Your task to perform on an android device: change the upload size in google photos Image 0: 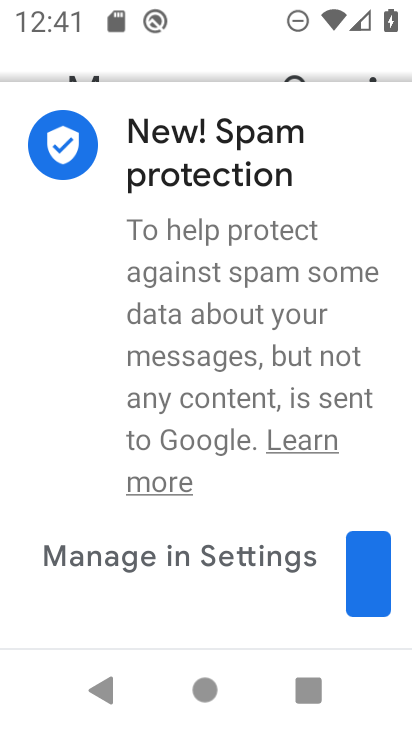
Step 0: press back button
Your task to perform on an android device: change the upload size in google photos Image 1: 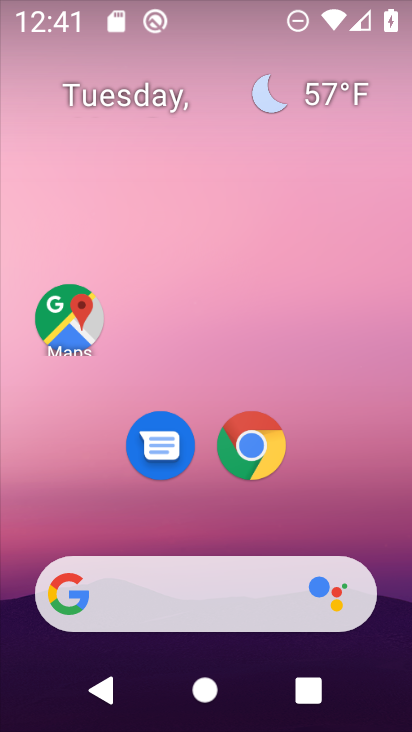
Step 1: drag from (386, 547) to (377, 285)
Your task to perform on an android device: change the upload size in google photos Image 2: 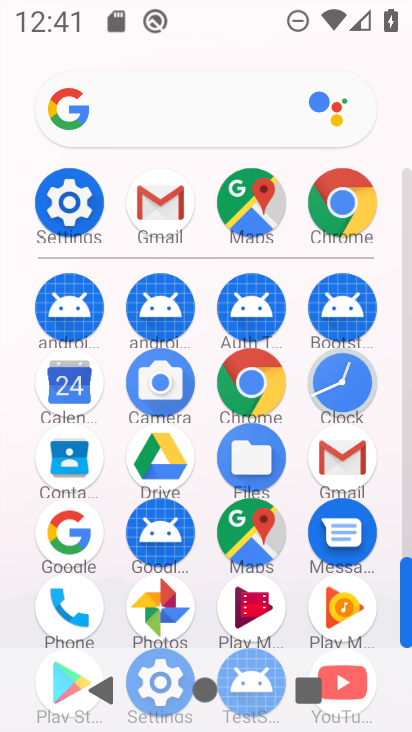
Step 2: drag from (389, 525) to (384, 382)
Your task to perform on an android device: change the upload size in google photos Image 3: 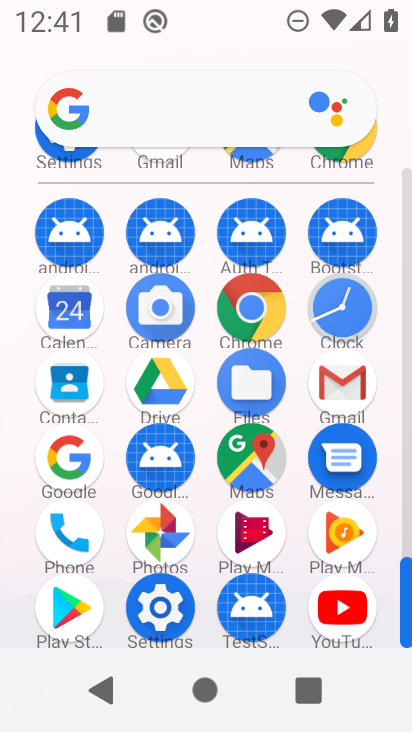
Step 3: click (161, 543)
Your task to perform on an android device: change the upload size in google photos Image 4: 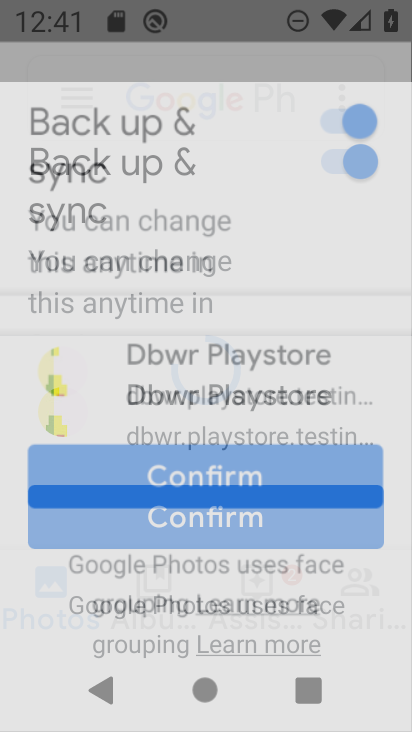
Step 4: click (209, 501)
Your task to perform on an android device: change the upload size in google photos Image 5: 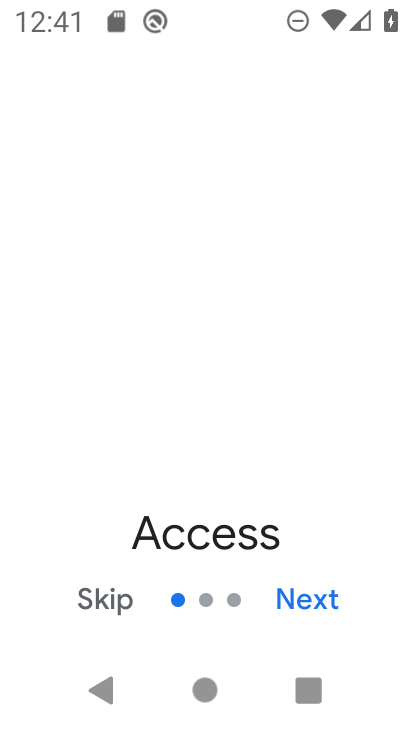
Step 5: click (321, 606)
Your task to perform on an android device: change the upload size in google photos Image 6: 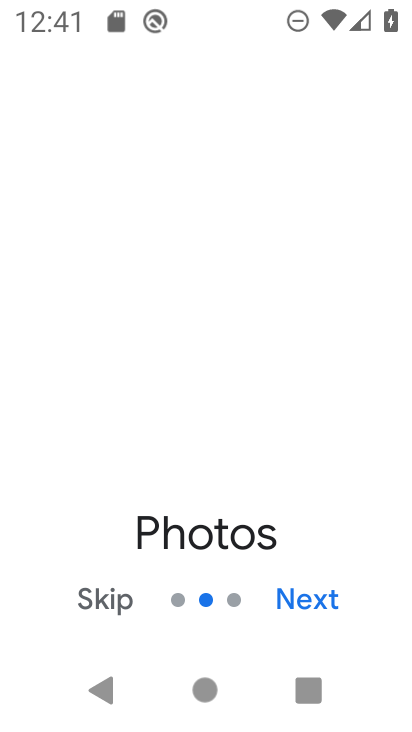
Step 6: click (321, 606)
Your task to perform on an android device: change the upload size in google photos Image 7: 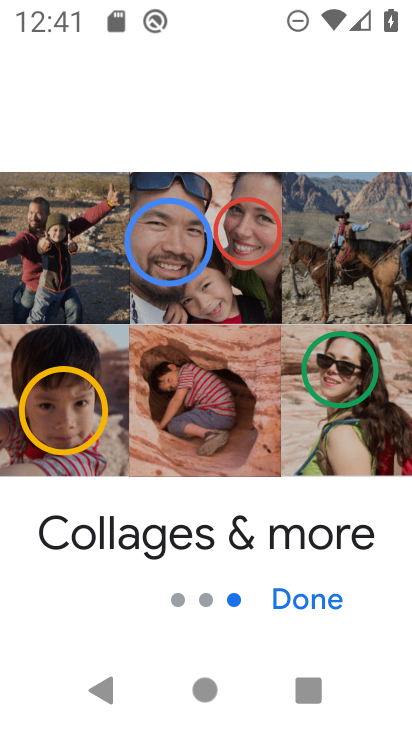
Step 7: click (321, 606)
Your task to perform on an android device: change the upload size in google photos Image 8: 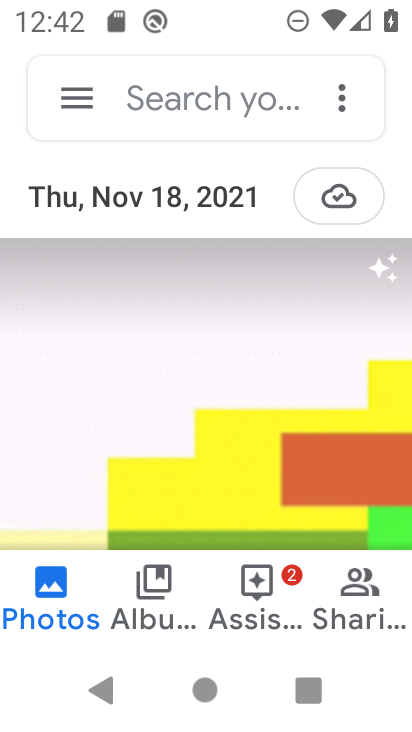
Step 8: click (86, 106)
Your task to perform on an android device: change the upload size in google photos Image 9: 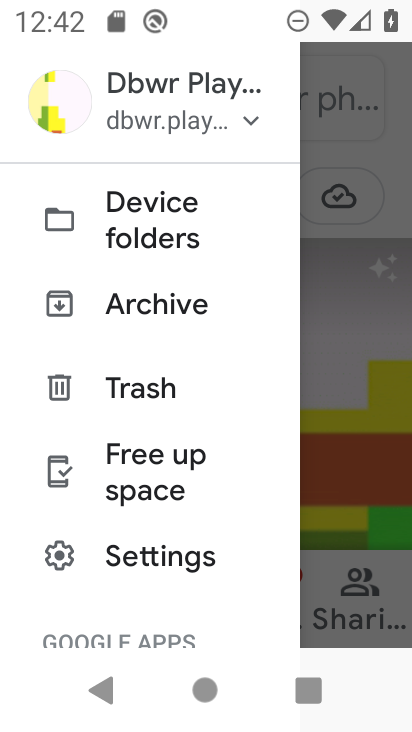
Step 9: click (136, 553)
Your task to perform on an android device: change the upload size in google photos Image 10: 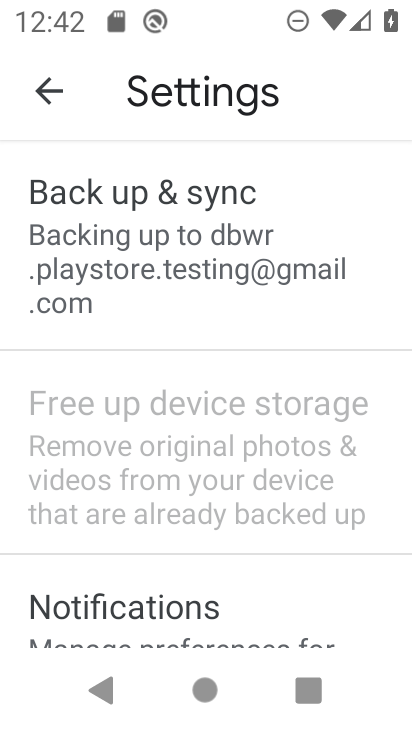
Step 10: click (165, 274)
Your task to perform on an android device: change the upload size in google photos Image 11: 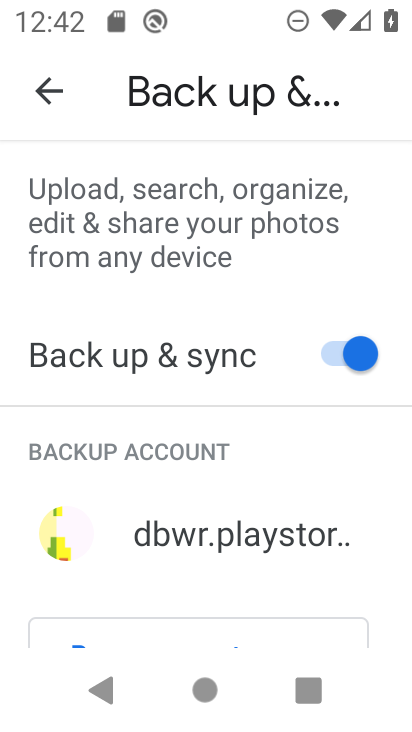
Step 11: drag from (262, 532) to (281, 451)
Your task to perform on an android device: change the upload size in google photos Image 12: 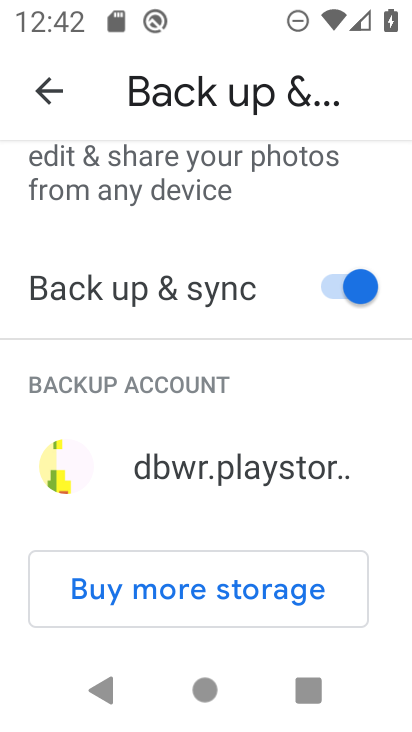
Step 12: drag from (299, 529) to (301, 405)
Your task to perform on an android device: change the upload size in google photos Image 13: 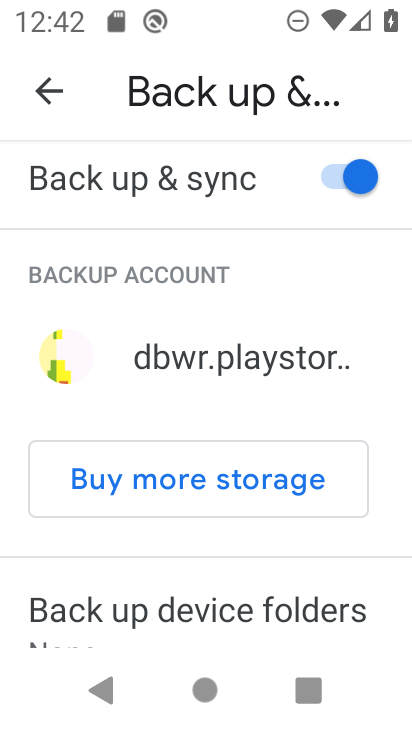
Step 13: drag from (322, 558) to (328, 434)
Your task to perform on an android device: change the upload size in google photos Image 14: 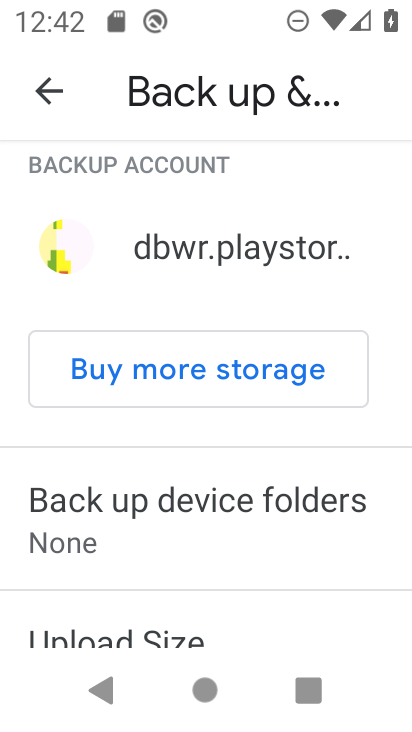
Step 14: drag from (320, 539) to (338, 448)
Your task to perform on an android device: change the upload size in google photos Image 15: 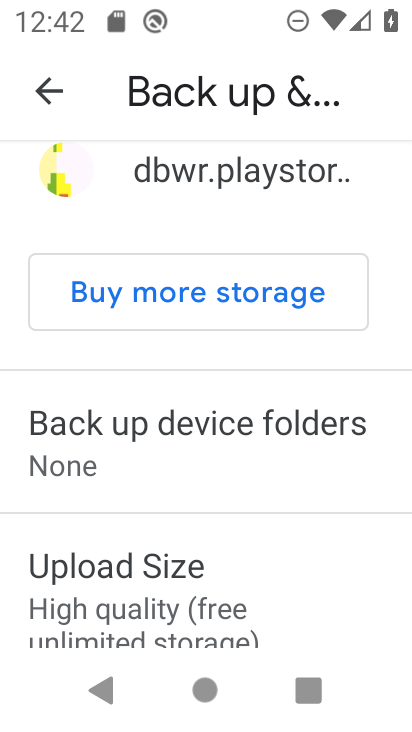
Step 15: drag from (318, 569) to (316, 486)
Your task to perform on an android device: change the upload size in google photos Image 16: 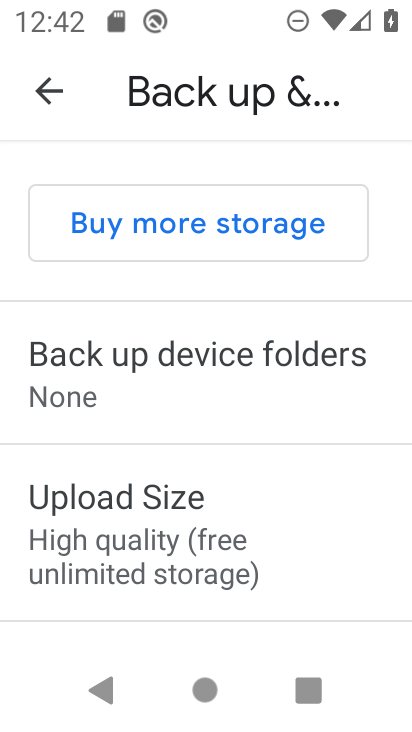
Step 16: click (243, 532)
Your task to perform on an android device: change the upload size in google photos Image 17: 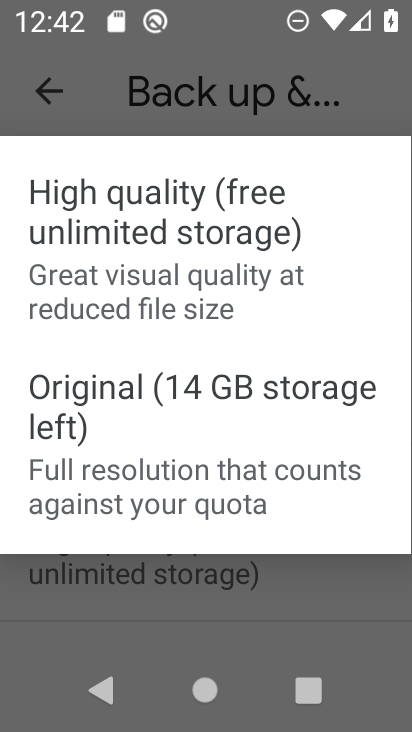
Step 17: click (216, 434)
Your task to perform on an android device: change the upload size in google photos Image 18: 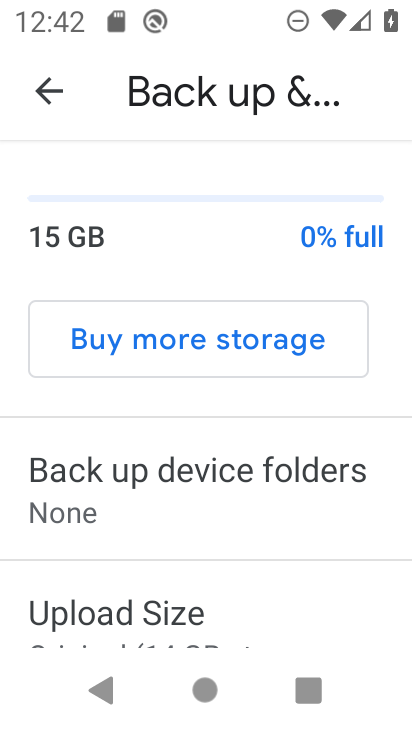
Step 18: task complete